Your task to perform on an android device: Open settings Image 0: 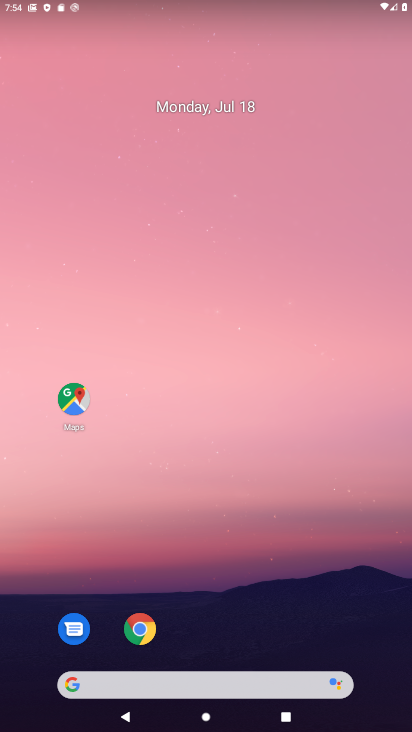
Step 0: drag from (242, 621) to (334, 166)
Your task to perform on an android device: Open settings Image 1: 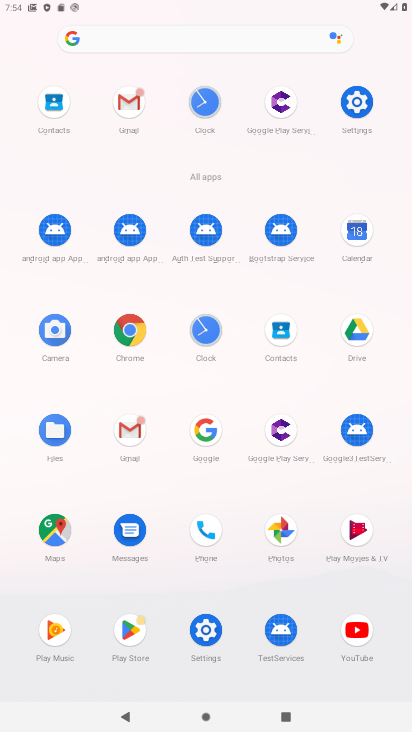
Step 1: click (356, 106)
Your task to perform on an android device: Open settings Image 2: 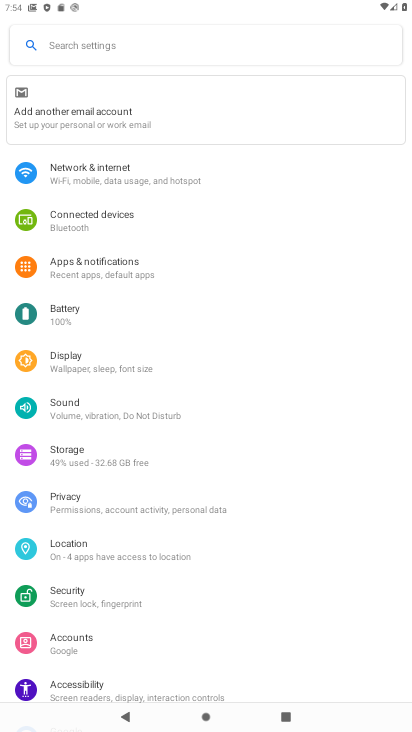
Step 2: task complete